Your task to perform on an android device: Go to internet settings Image 0: 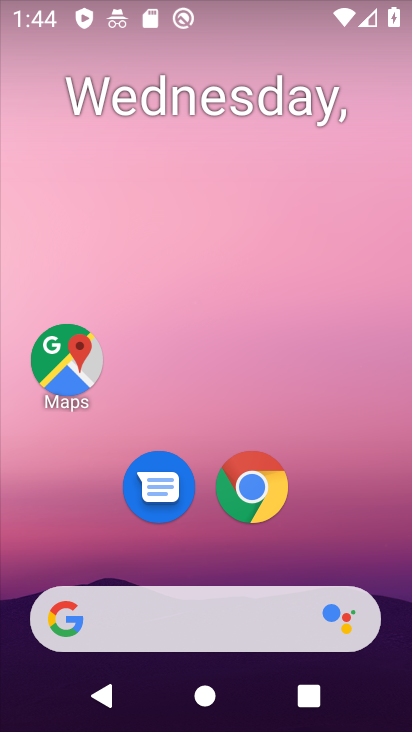
Step 0: drag from (261, 613) to (238, 6)
Your task to perform on an android device: Go to internet settings Image 1: 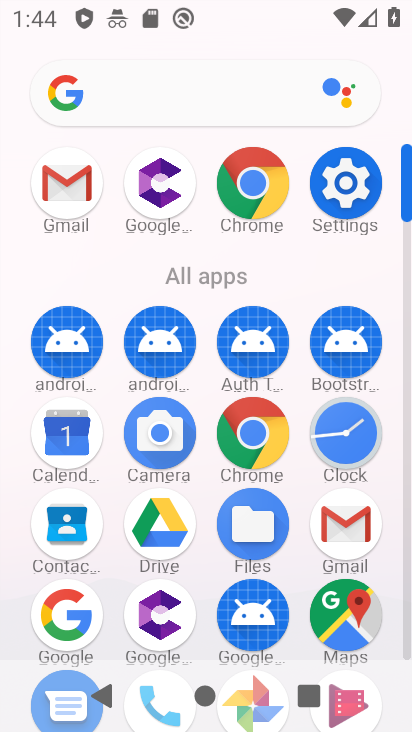
Step 1: click (356, 185)
Your task to perform on an android device: Go to internet settings Image 2: 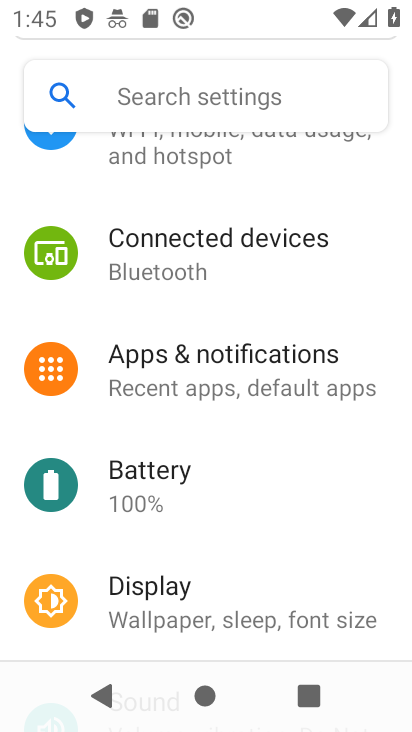
Step 2: drag from (159, 205) to (258, 665)
Your task to perform on an android device: Go to internet settings Image 3: 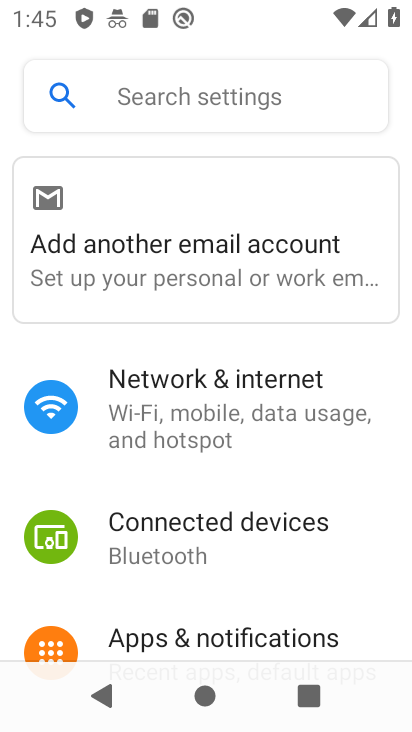
Step 3: click (251, 386)
Your task to perform on an android device: Go to internet settings Image 4: 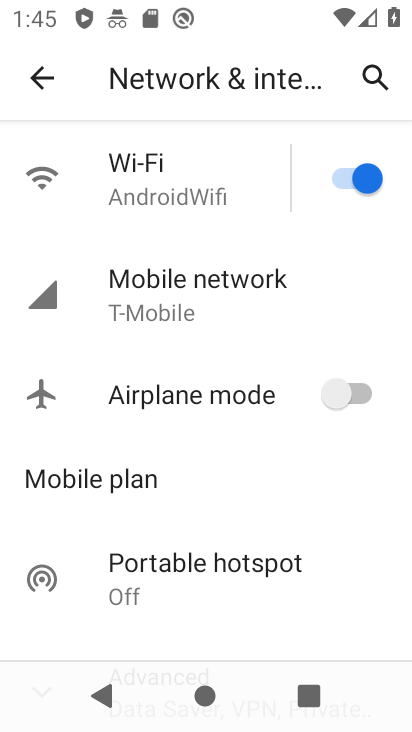
Step 4: task complete